Your task to perform on an android device: Open the calendar app, open the side menu, and click the "Day" option Image 0: 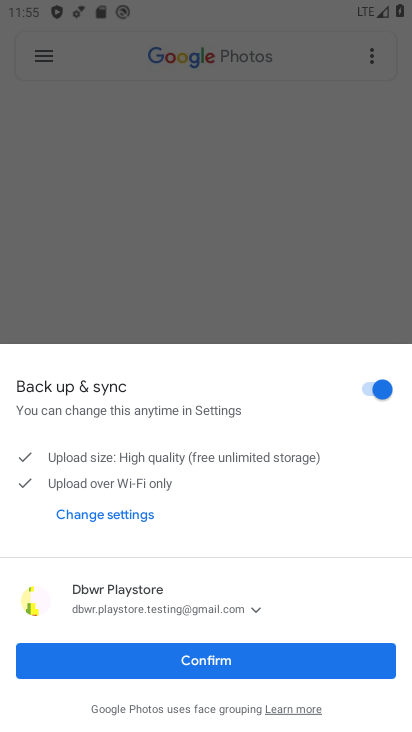
Step 0: press back button
Your task to perform on an android device: Open the calendar app, open the side menu, and click the "Day" option Image 1: 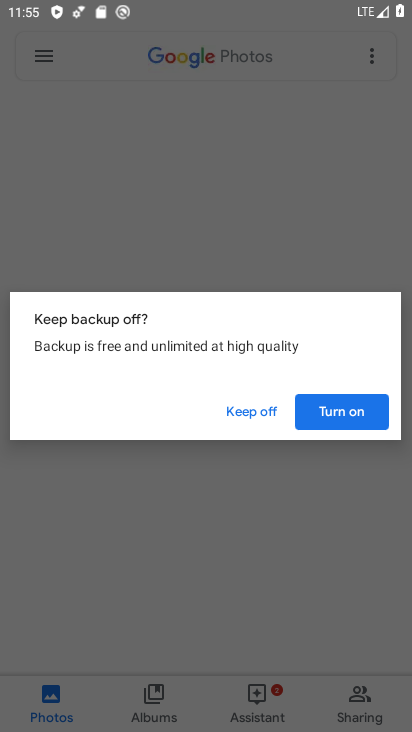
Step 1: press back button
Your task to perform on an android device: Open the calendar app, open the side menu, and click the "Day" option Image 2: 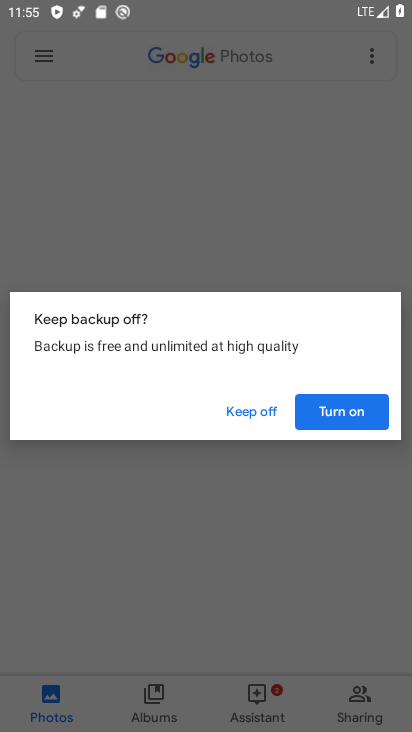
Step 2: press home button
Your task to perform on an android device: Open the calendar app, open the side menu, and click the "Day" option Image 3: 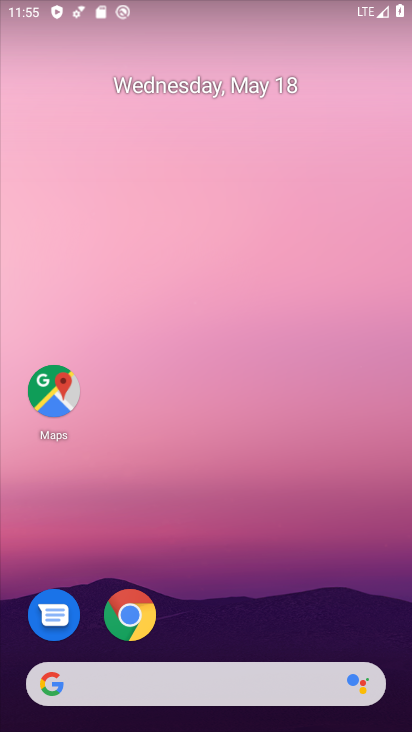
Step 3: drag from (215, 516) to (190, 19)
Your task to perform on an android device: Open the calendar app, open the side menu, and click the "Day" option Image 4: 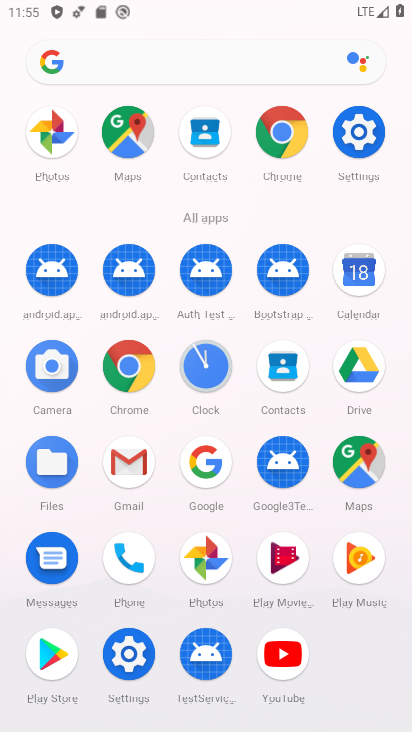
Step 4: click (360, 259)
Your task to perform on an android device: Open the calendar app, open the side menu, and click the "Day" option Image 5: 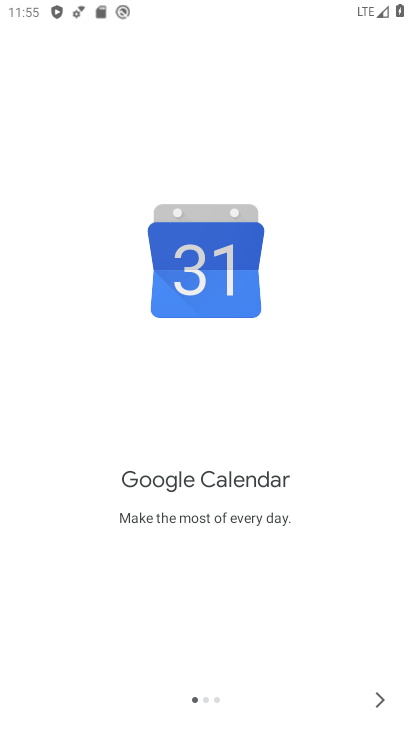
Step 5: click (369, 689)
Your task to perform on an android device: Open the calendar app, open the side menu, and click the "Day" option Image 6: 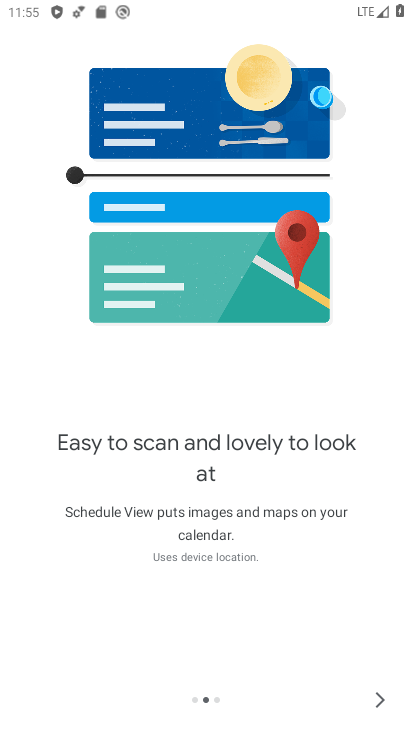
Step 6: click (370, 689)
Your task to perform on an android device: Open the calendar app, open the side menu, and click the "Day" option Image 7: 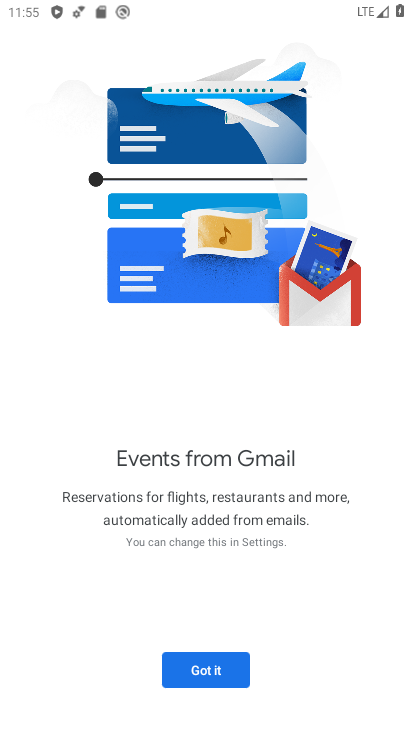
Step 7: click (227, 668)
Your task to perform on an android device: Open the calendar app, open the side menu, and click the "Day" option Image 8: 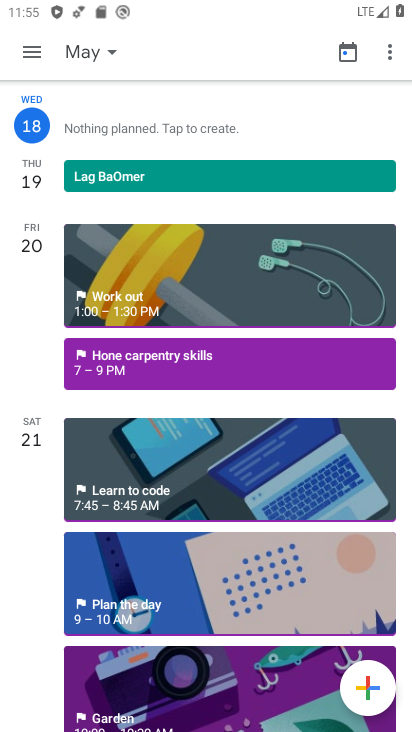
Step 8: click (27, 50)
Your task to perform on an android device: Open the calendar app, open the side menu, and click the "Day" option Image 9: 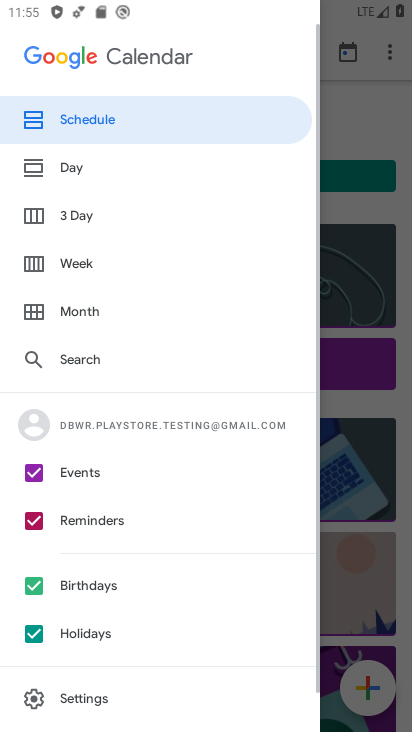
Step 9: click (93, 171)
Your task to perform on an android device: Open the calendar app, open the side menu, and click the "Day" option Image 10: 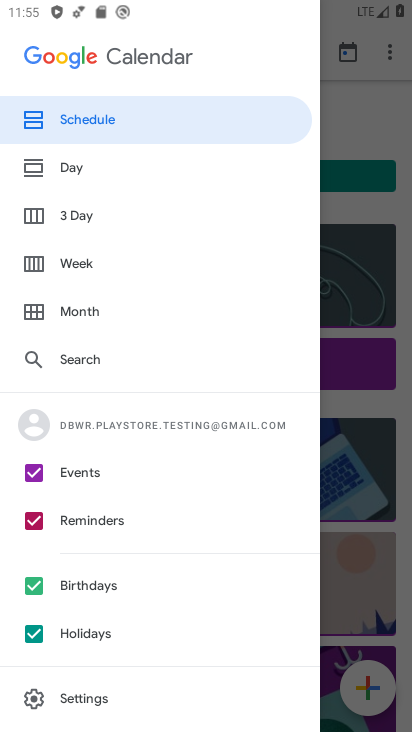
Step 10: click (79, 167)
Your task to perform on an android device: Open the calendar app, open the side menu, and click the "Day" option Image 11: 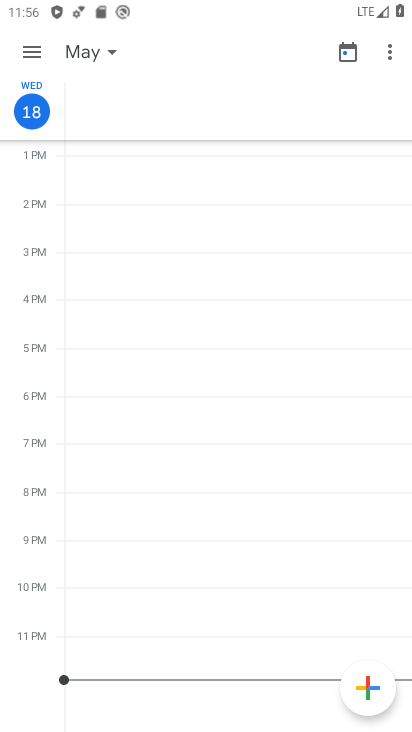
Step 11: task complete